Your task to perform on an android device: check out phone information Image 0: 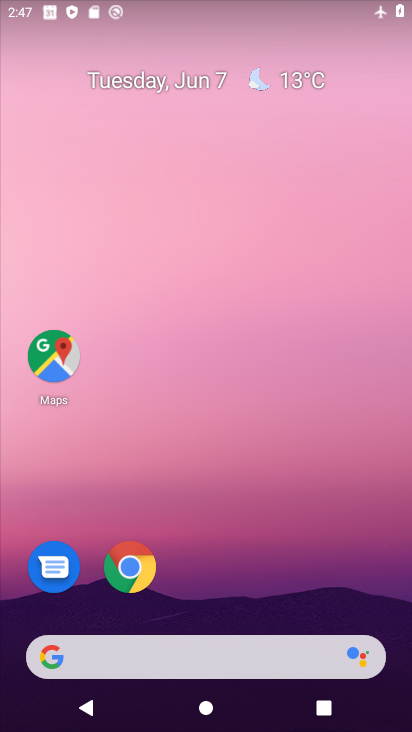
Step 0: drag from (246, 568) to (349, 75)
Your task to perform on an android device: check out phone information Image 1: 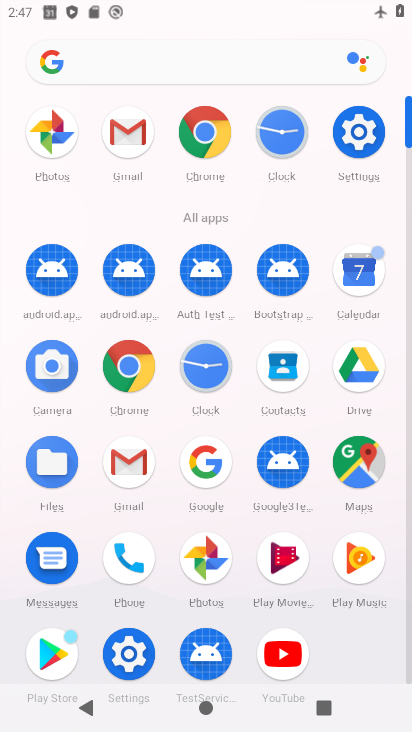
Step 1: click (370, 137)
Your task to perform on an android device: check out phone information Image 2: 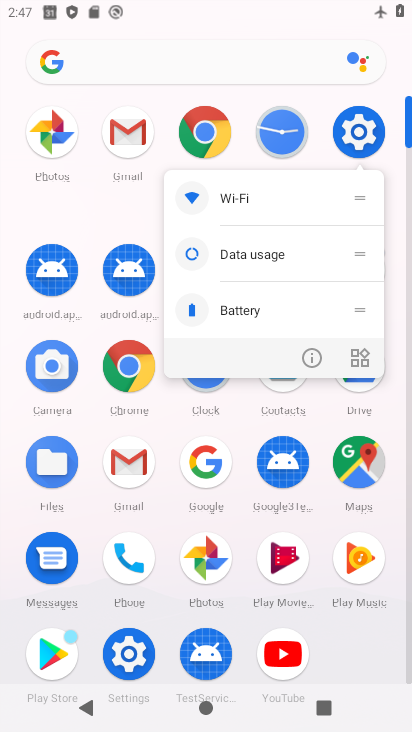
Step 2: click (349, 138)
Your task to perform on an android device: check out phone information Image 3: 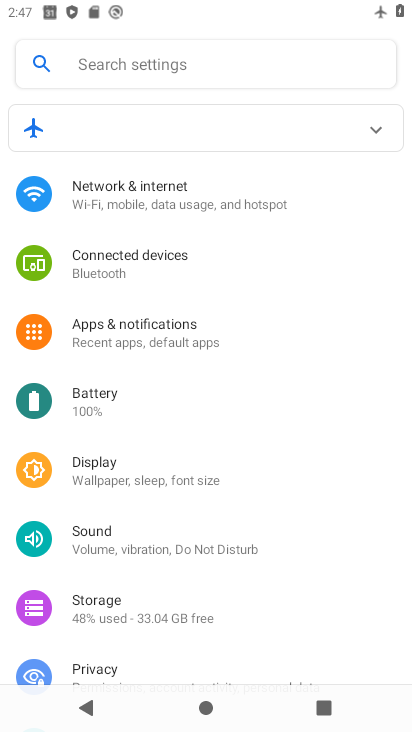
Step 3: drag from (156, 631) to (264, 120)
Your task to perform on an android device: check out phone information Image 4: 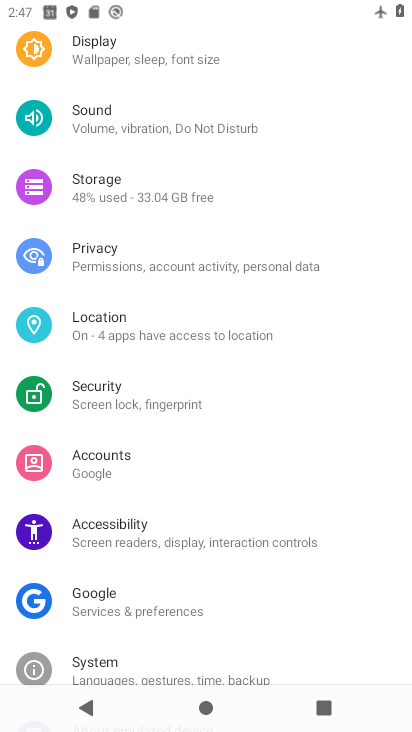
Step 4: drag from (127, 671) to (277, 49)
Your task to perform on an android device: check out phone information Image 5: 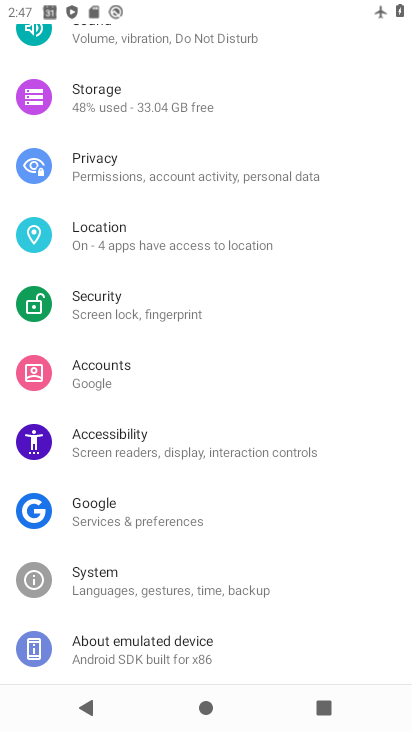
Step 5: click (99, 654)
Your task to perform on an android device: check out phone information Image 6: 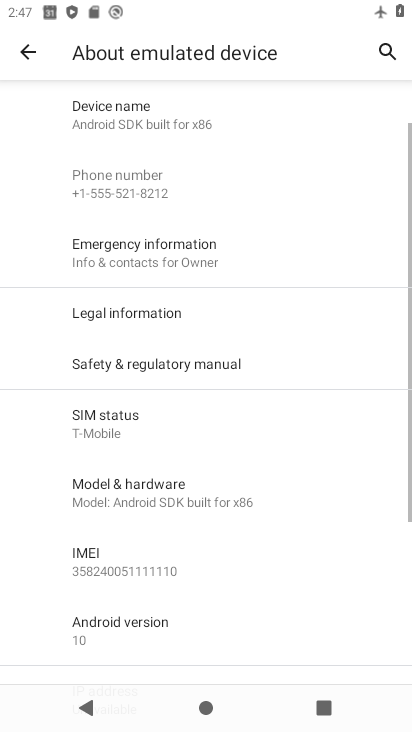
Step 6: task complete